Your task to perform on an android device: What's on my calendar today? Image 0: 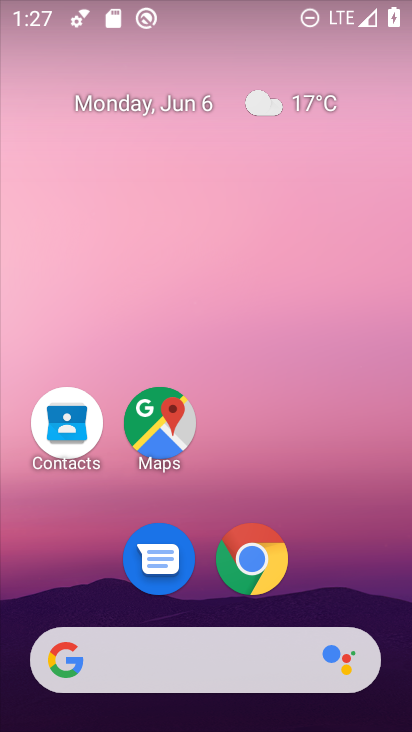
Step 0: drag from (188, 725) to (244, 271)
Your task to perform on an android device: What's on my calendar today? Image 1: 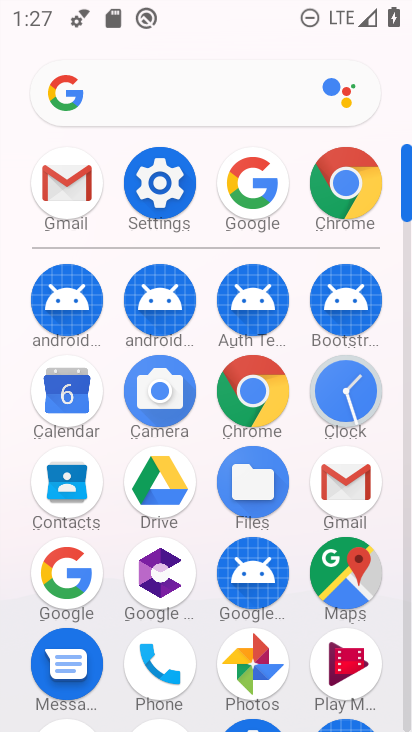
Step 1: click (79, 403)
Your task to perform on an android device: What's on my calendar today? Image 2: 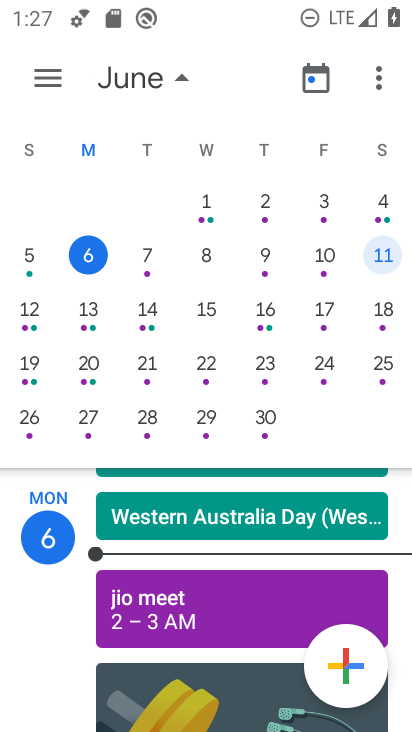
Step 2: task complete